Your task to perform on an android device: turn notification dots off Image 0: 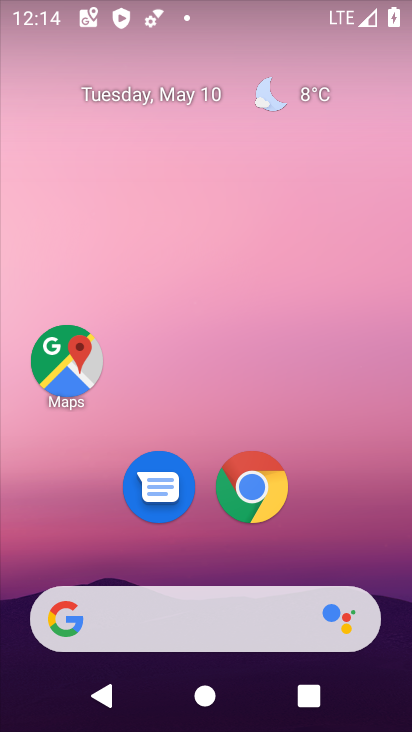
Step 0: drag from (207, 556) to (244, 140)
Your task to perform on an android device: turn notification dots off Image 1: 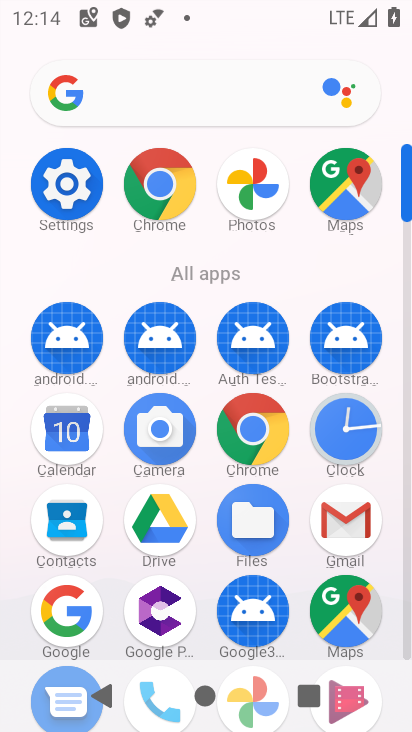
Step 1: click (63, 179)
Your task to perform on an android device: turn notification dots off Image 2: 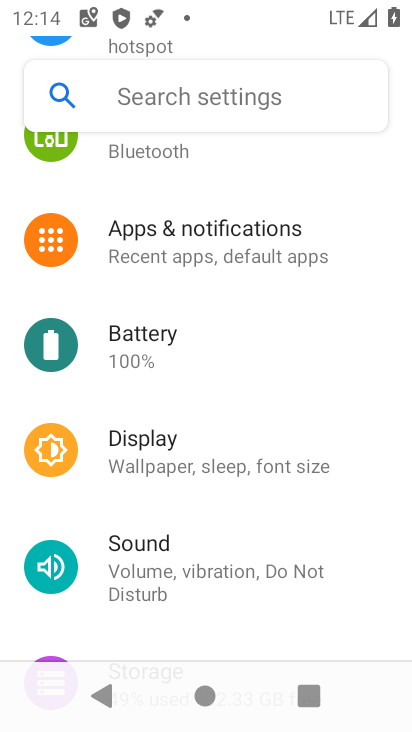
Step 2: click (216, 239)
Your task to perform on an android device: turn notification dots off Image 3: 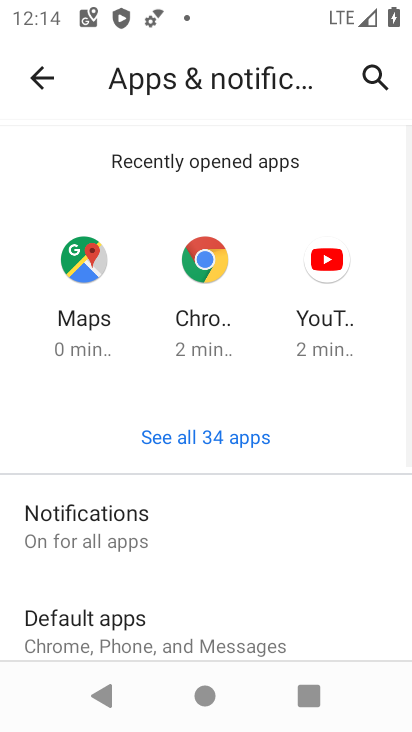
Step 3: click (158, 524)
Your task to perform on an android device: turn notification dots off Image 4: 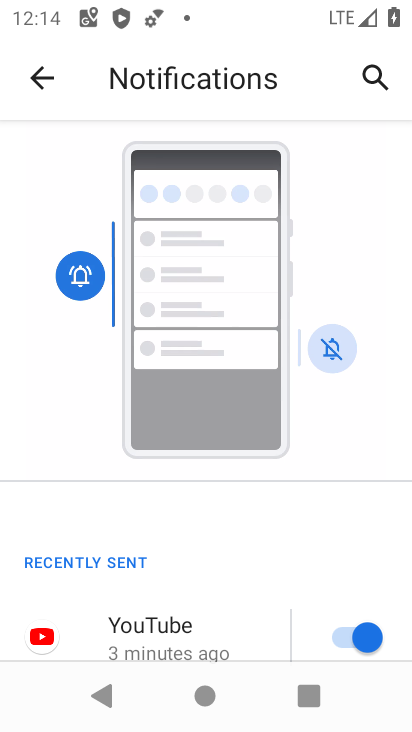
Step 4: drag from (228, 624) to (272, 147)
Your task to perform on an android device: turn notification dots off Image 5: 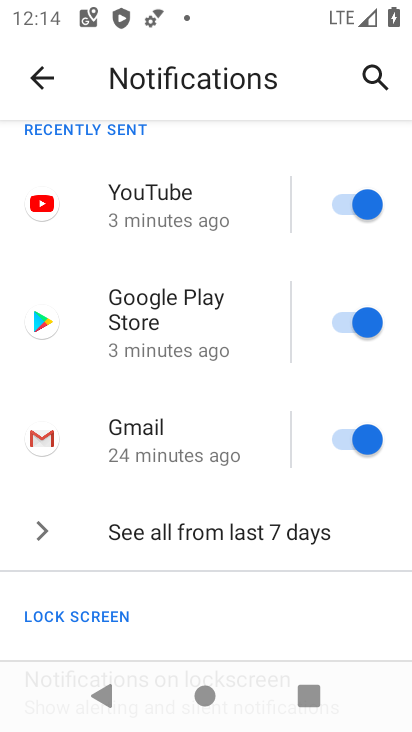
Step 5: drag from (222, 598) to (255, 155)
Your task to perform on an android device: turn notification dots off Image 6: 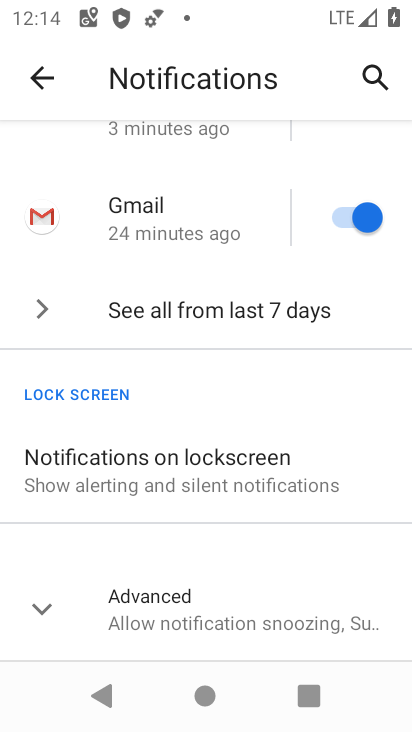
Step 6: click (40, 613)
Your task to perform on an android device: turn notification dots off Image 7: 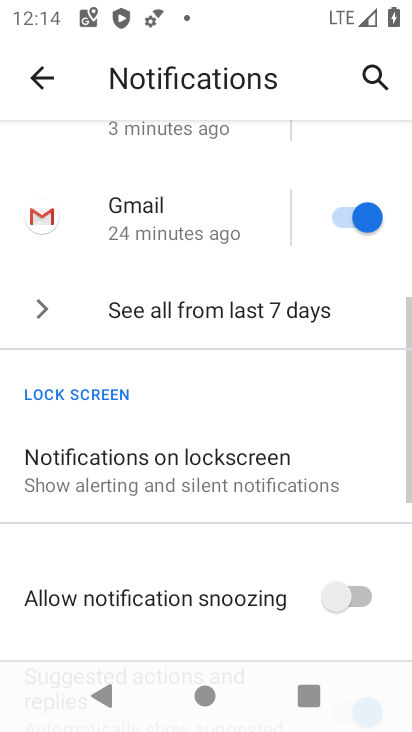
Step 7: drag from (178, 622) to (247, 120)
Your task to perform on an android device: turn notification dots off Image 8: 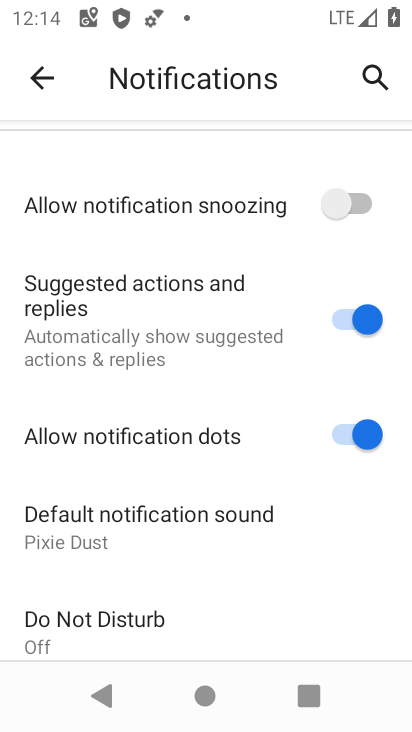
Step 8: click (345, 433)
Your task to perform on an android device: turn notification dots off Image 9: 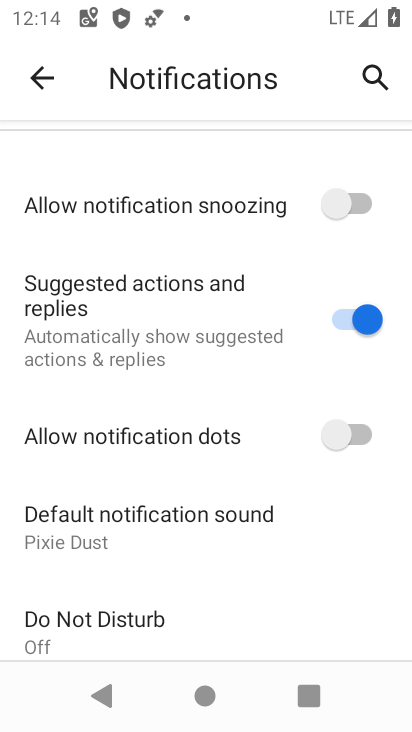
Step 9: task complete